Your task to perform on an android device: Open the Play Movies app and select the watchlist tab. Image 0: 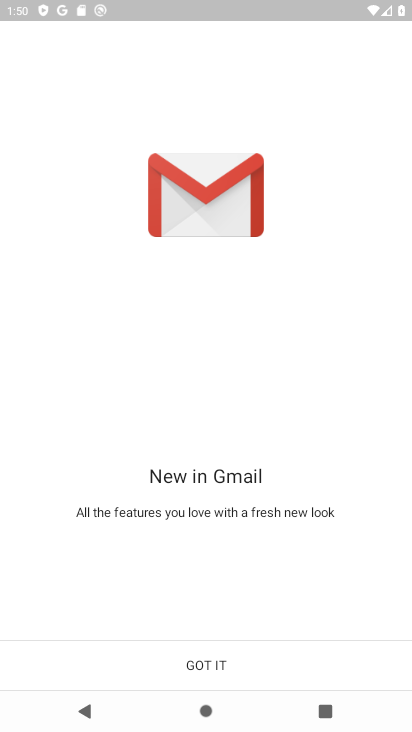
Step 0: press back button
Your task to perform on an android device: Open the Play Movies app and select the watchlist tab. Image 1: 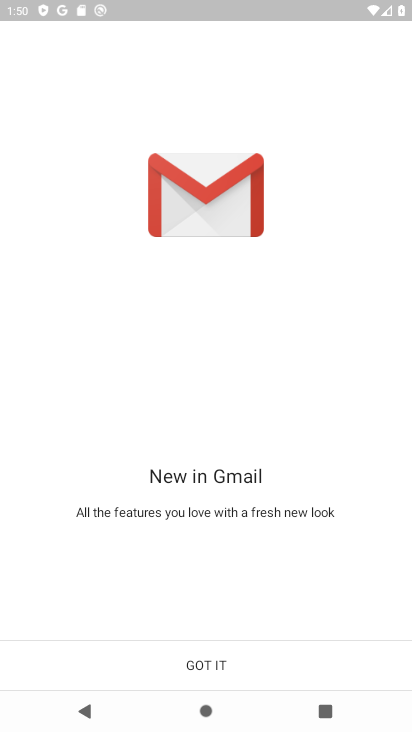
Step 1: press back button
Your task to perform on an android device: Open the Play Movies app and select the watchlist tab. Image 2: 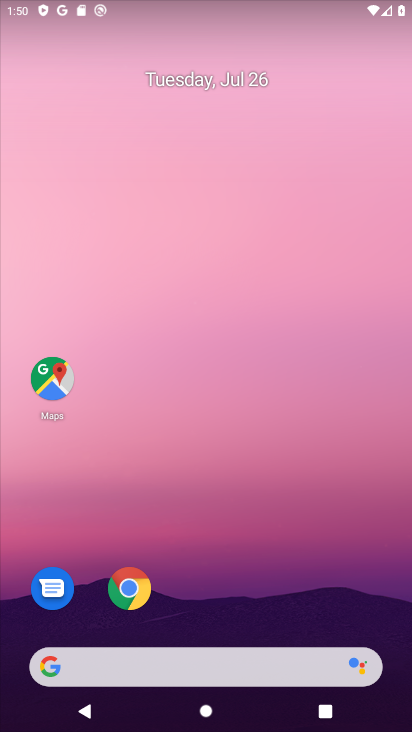
Step 2: drag from (213, 585) to (205, 3)
Your task to perform on an android device: Open the Play Movies app and select the watchlist tab. Image 3: 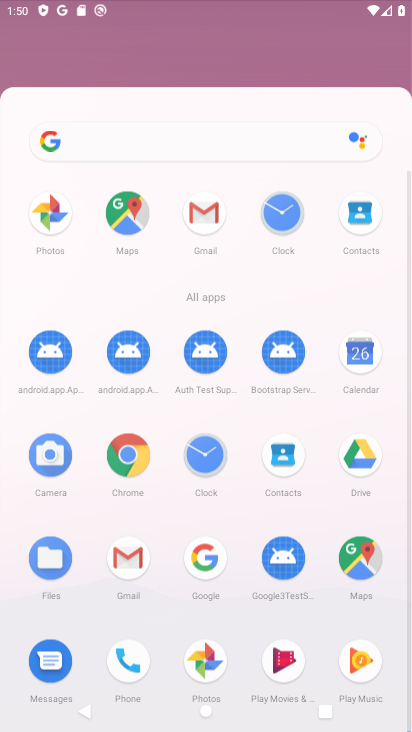
Step 3: drag from (121, 493) to (139, 219)
Your task to perform on an android device: Open the Play Movies app and select the watchlist tab. Image 4: 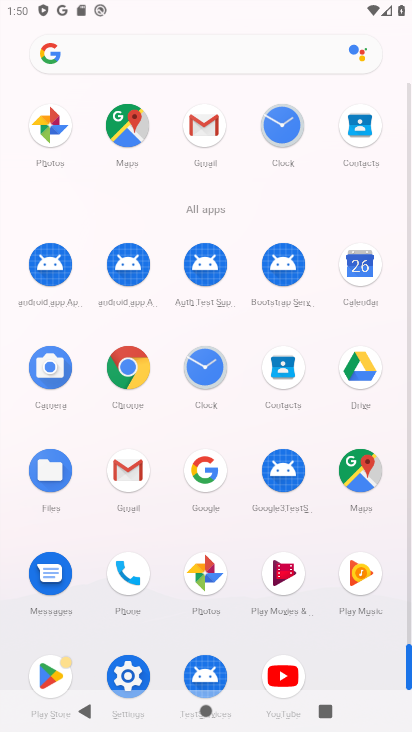
Step 4: click (290, 571)
Your task to perform on an android device: Open the Play Movies app and select the watchlist tab. Image 5: 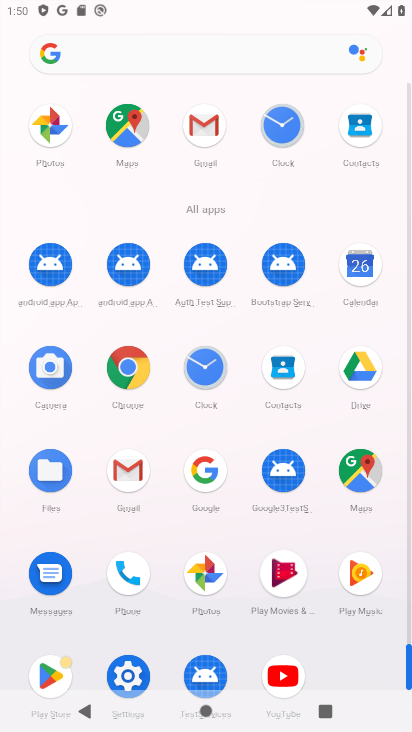
Step 5: click (290, 571)
Your task to perform on an android device: Open the Play Movies app and select the watchlist tab. Image 6: 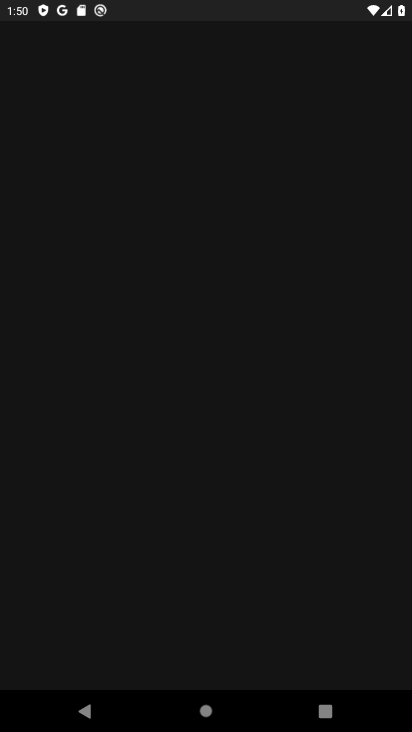
Step 6: click (290, 571)
Your task to perform on an android device: Open the Play Movies app and select the watchlist tab. Image 7: 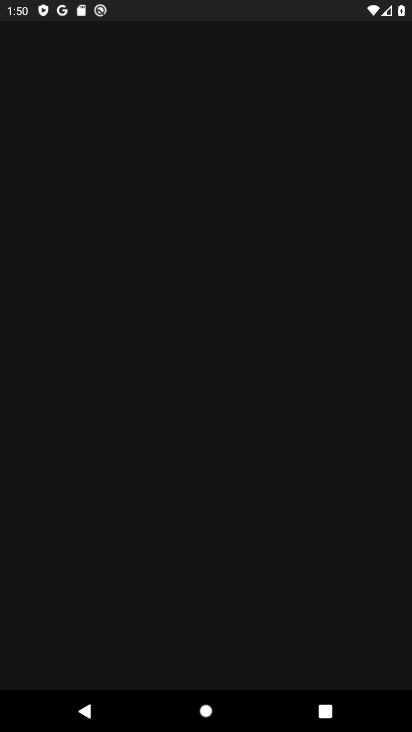
Step 7: click (286, 567)
Your task to perform on an android device: Open the Play Movies app and select the watchlist tab. Image 8: 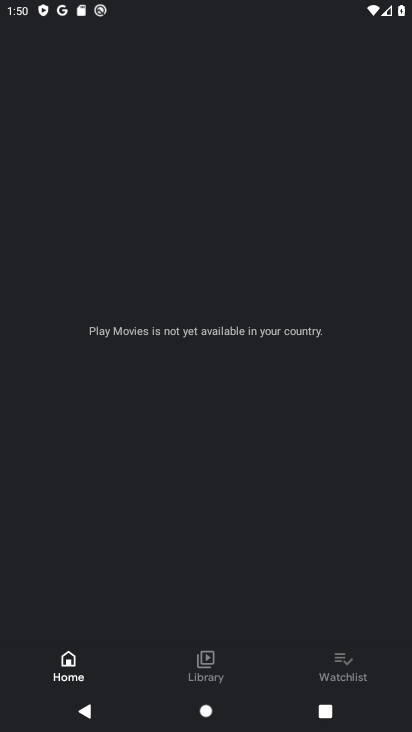
Step 8: click (337, 654)
Your task to perform on an android device: Open the Play Movies app and select the watchlist tab. Image 9: 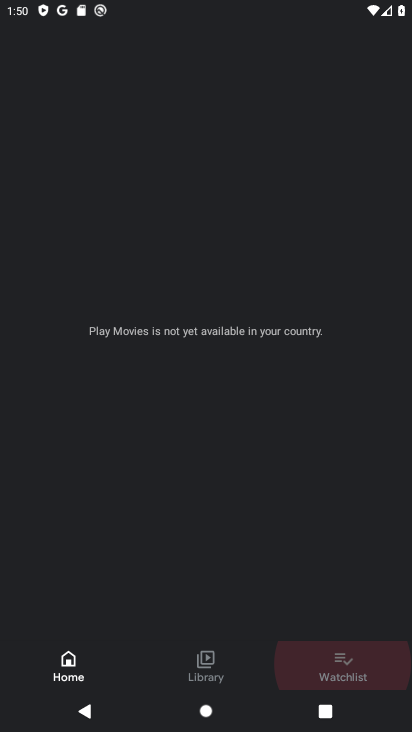
Step 9: click (339, 653)
Your task to perform on an android device: Open the Play Movies app and select the watchlist tab. Image 10: 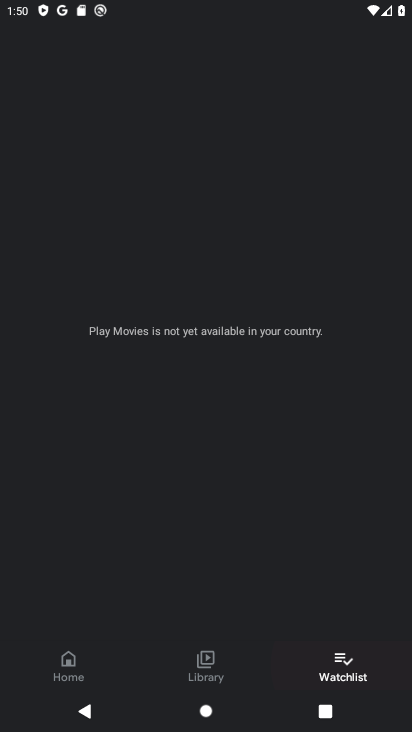
Step 10: click (342, 653)
Your task to perform on an android device: Open the Play Movies app and select the watchlist tab. Image 11: 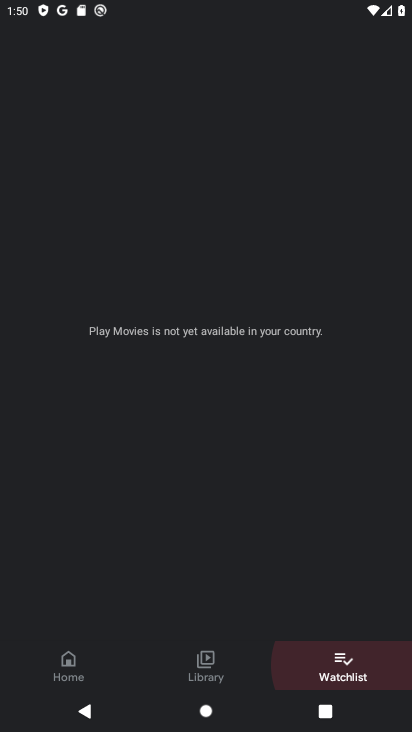
Step 11: click (346, 651)
Your task to perform on an android device: Open the Play Movies app and select the watchlist tab. Image 12: 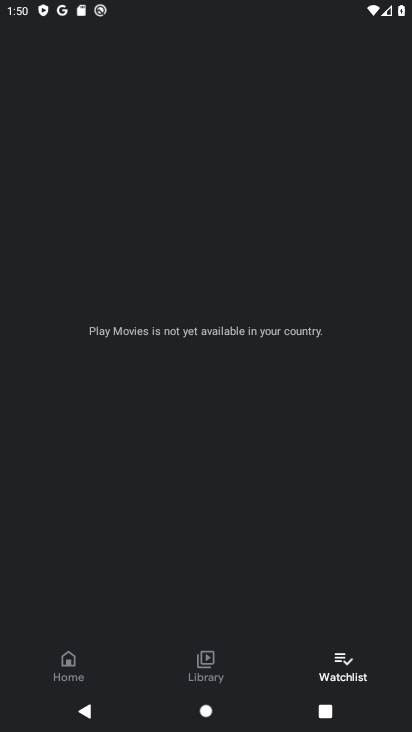
Step 12: task complete